Your task to perform on an android device: change notification settings in the gmail app Image 0: 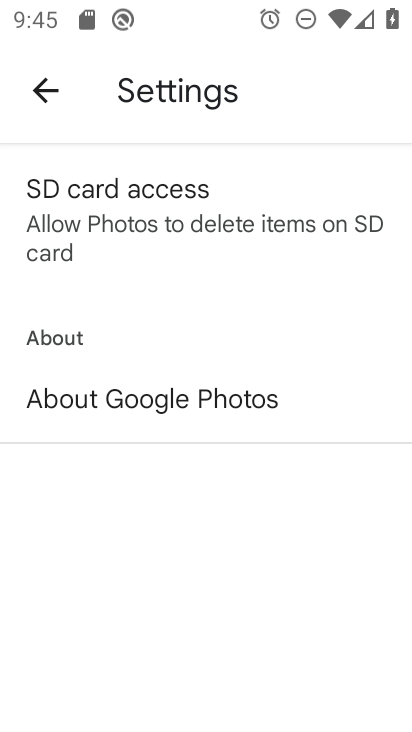
Step 0: press home button
Your task to perform on an android device: change notification settings in the gmail app Image 1: 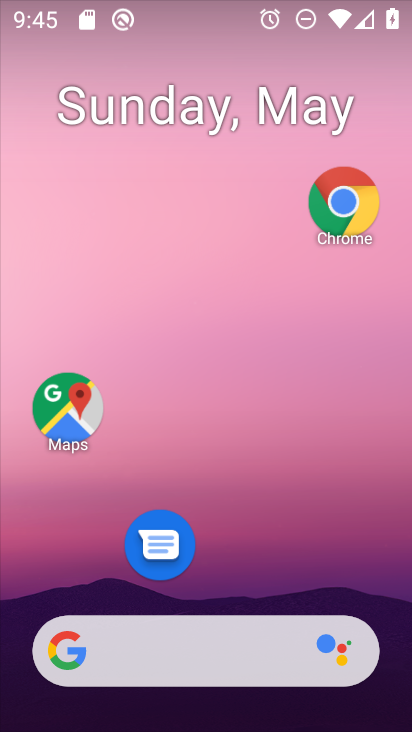
Step 1: drag from (261, 589) to (267, 50)
Your task to perform on an android device: change notification settings in the gmail app Image 2: 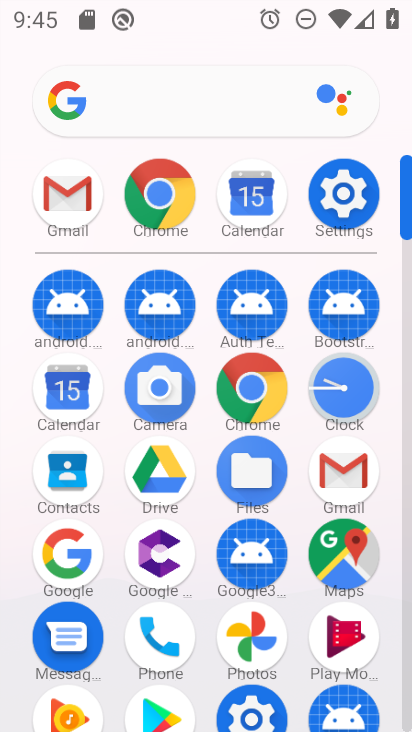
Step 2: click (333, 482)
Your task to perform on an android device: change notification settings in the gmail app Image 3: 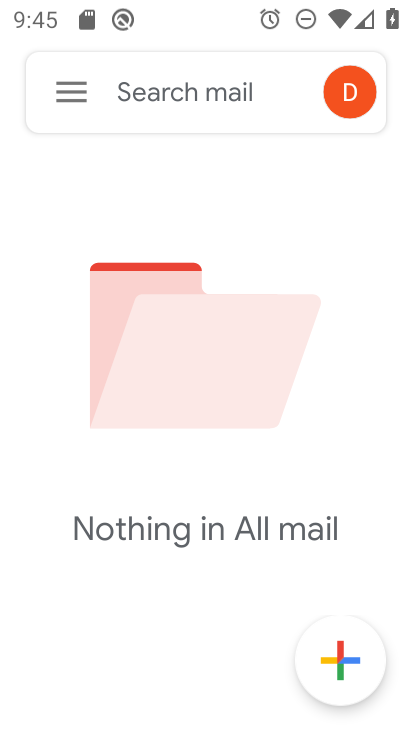
Step 3: click (73, 93)
Your task to perform on an android device: change notification settings in the gmail app Image 4: 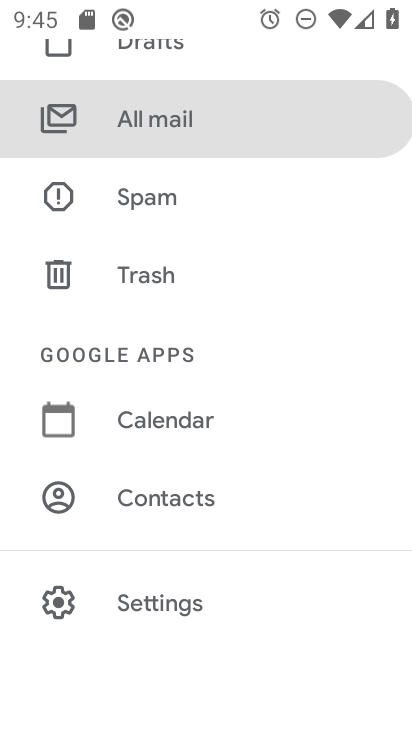
Step 4: click (172, 602)
Your task to perform on an android device: change notification settings in the gmail app Image 5: 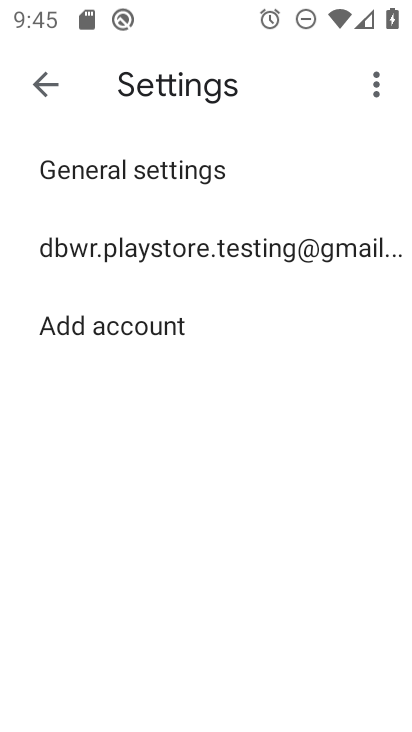
Step 5: click (210, 241)
Your task to perform on an android device: change notification settings in the gmail app Image 6: 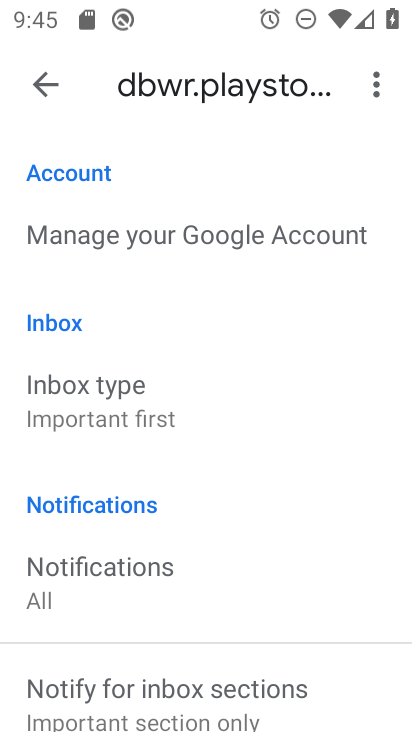
Step 6: drag from (201, 600) to (193, 259)
Your task to perform on an android device: change notification settings in the gmail app Image 7: 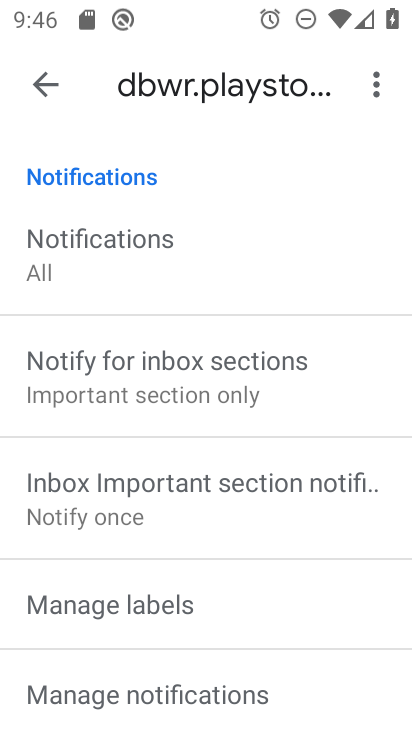
Step 7: click (133, 695)
Your task to perform on an android device: change notification settings in the gmail app Image 8: 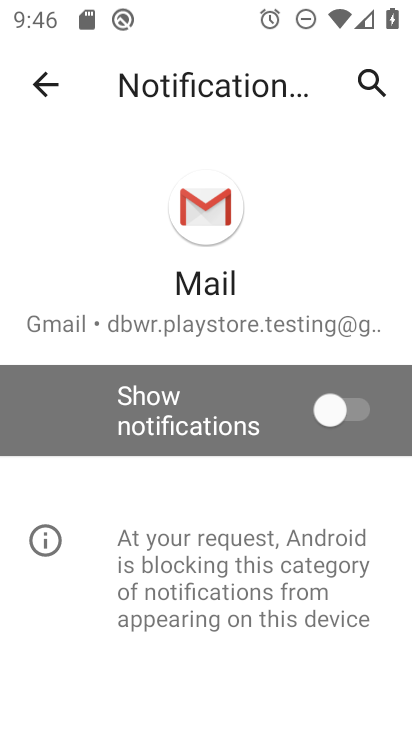
Step 8: click (351, 416)
Your task to perform on an android device: change notification settings in the gmail app Image 9: 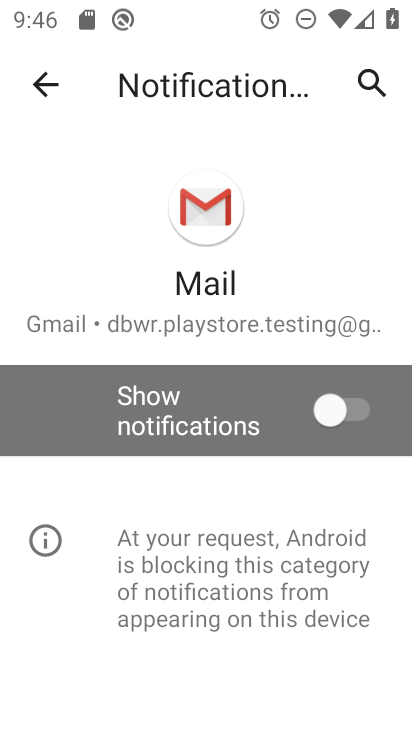
Step 9: click (353, 416)
Your task to perform on an android device: change notification settings in the gmail app Image 10: 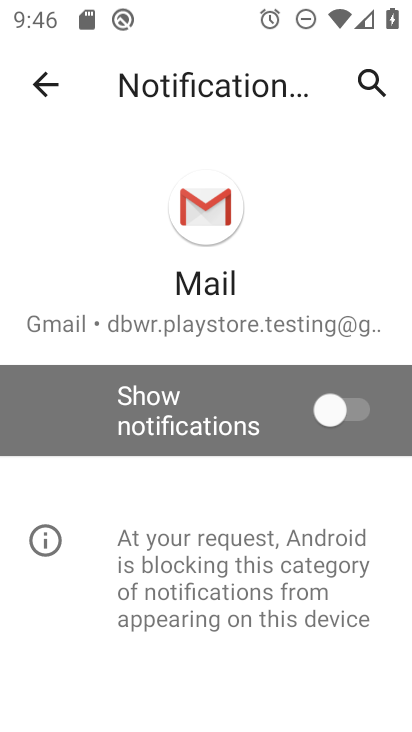
Step 10: click (353, 416)
Your task to perform on an android device: change notification settings in the gmail app Image 11: 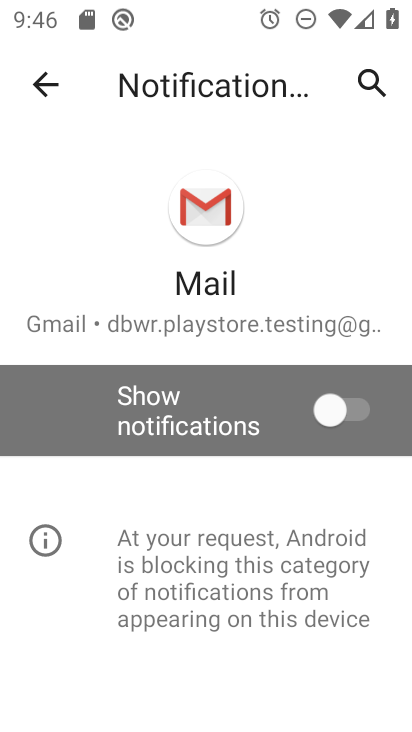
Step 11: click (353, 416)
Your task to perform on an android device: change notification settings in the gmail app Image 12: 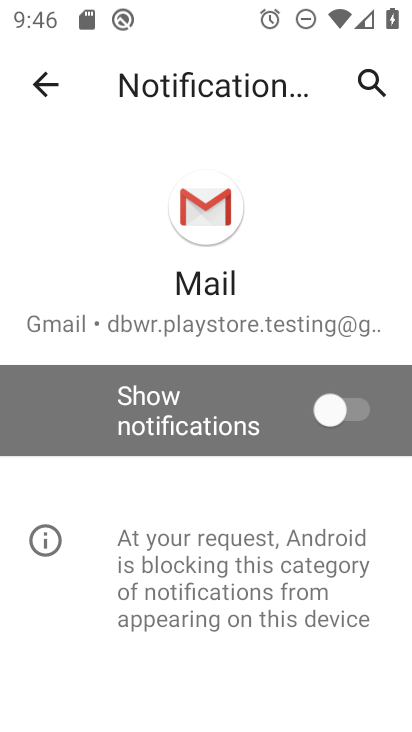
Step 12: task complete